Your task to perform on an android device: Open notification settings Image 0: 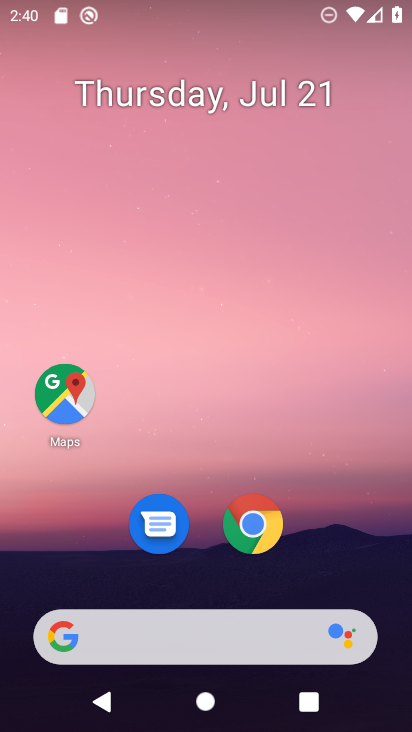
Step 0: drag from (177, 647) to (239, 88)
Your task to perform on an android device: Open notification settings Image 1: 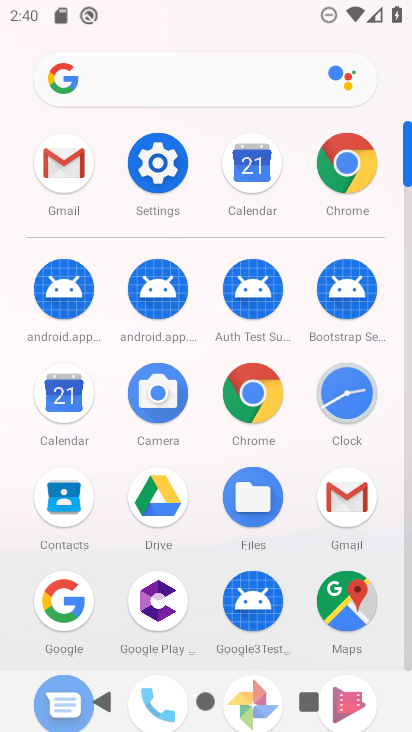
Step 1: click (158, 176)
Your task to perform on an android device: Open notification settings Image 2: 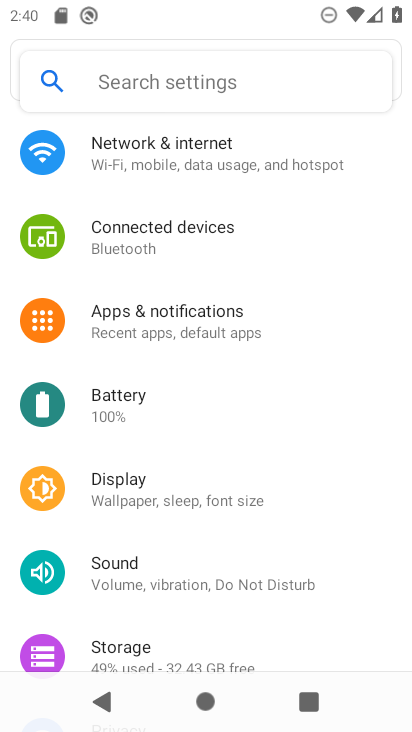
Step 2: click (205, 314)
Your task to perform on an android device: Open notification settings Image 3: 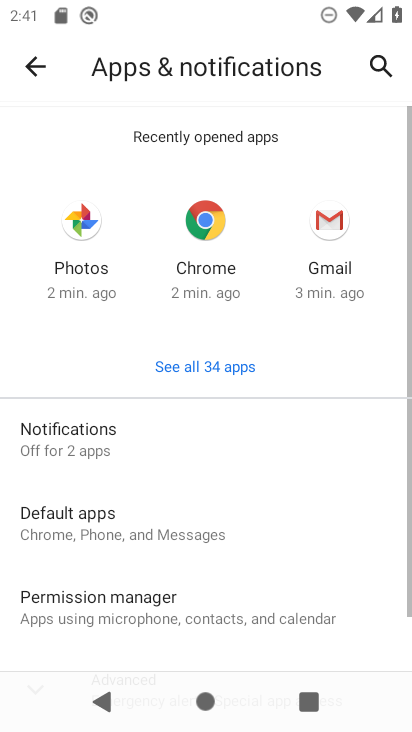
Step 3: click (91, 433)
Your task to perform on an android device: Open notification settings Image 4: 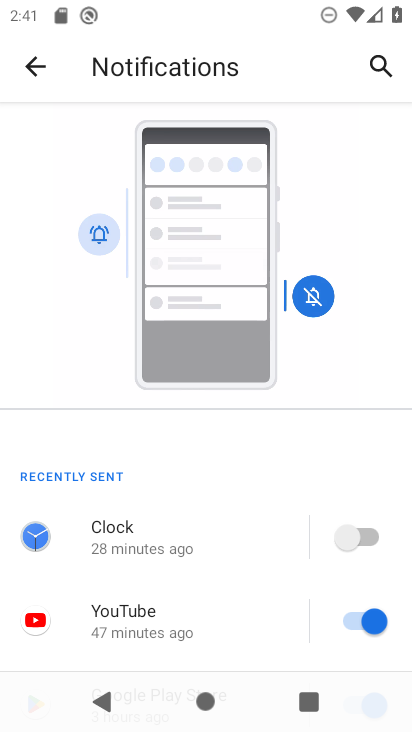
Step 4: task complete